Your task to perform on an android device: turn off wifi Image 0: 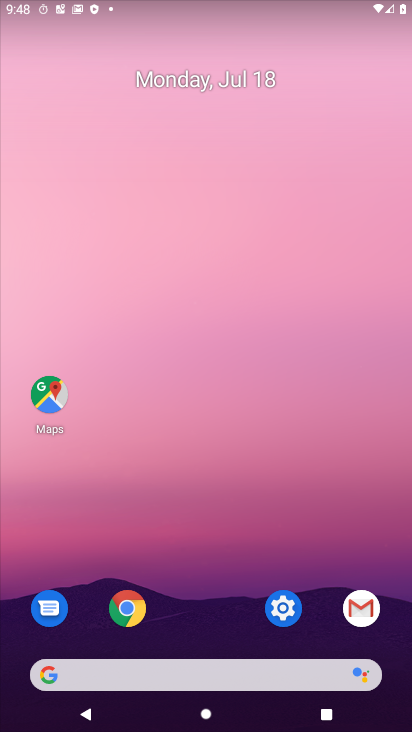
Step 0: click (281, 599)
Your task to perform on an android device: turn off wifi Image 1: 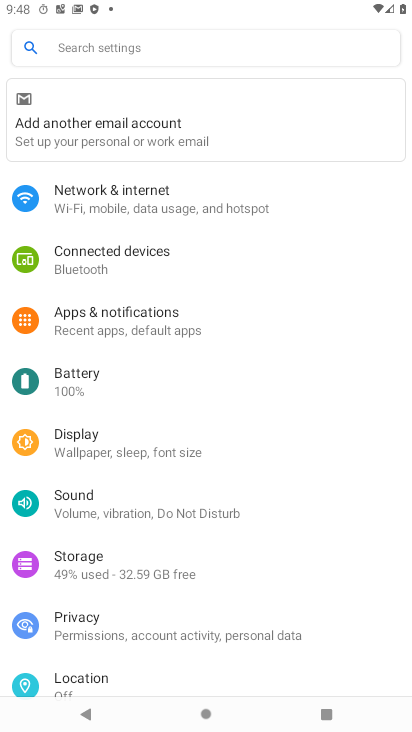
Step 1: click (128, 203)
Your task to perform on an android device: turn off wifi Image 2: 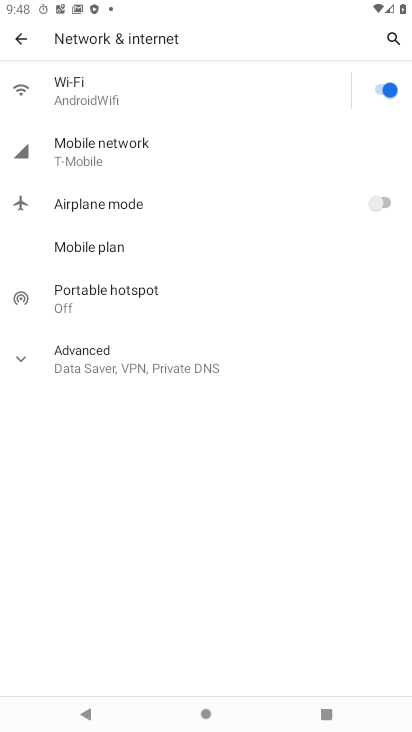
Step 2: click (113, 92)
Your task to perform on an android device: turn off wifi Image 3: 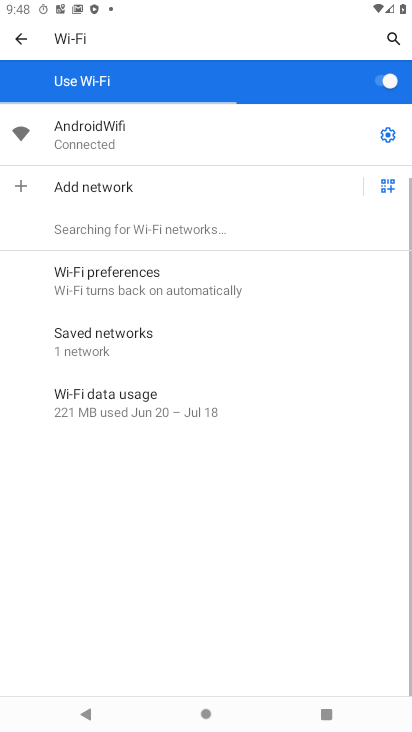
Step 3: click (386, 82)
Your task to perform on an android device: turn off wifi Image 4: 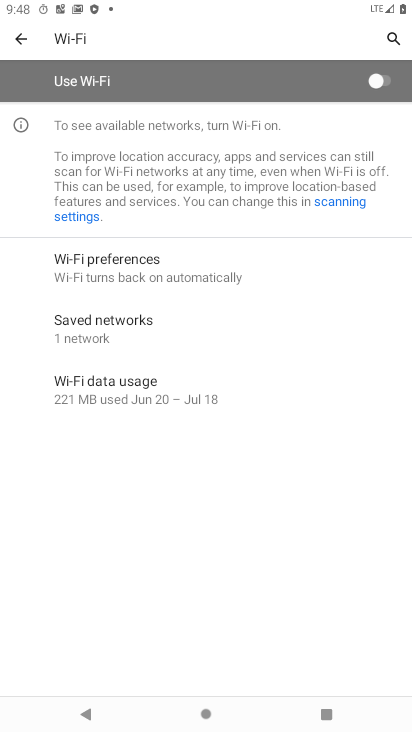
Step 4: task complete